Your task to perform on an android device: Open Yahoo.com Image 0: 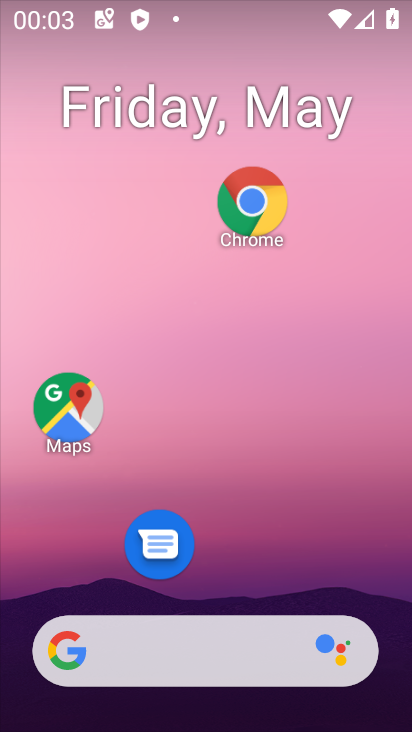
Step 0: click (255, 202)
Your task to perform on an android device: Open Yahoo.com Image 1: 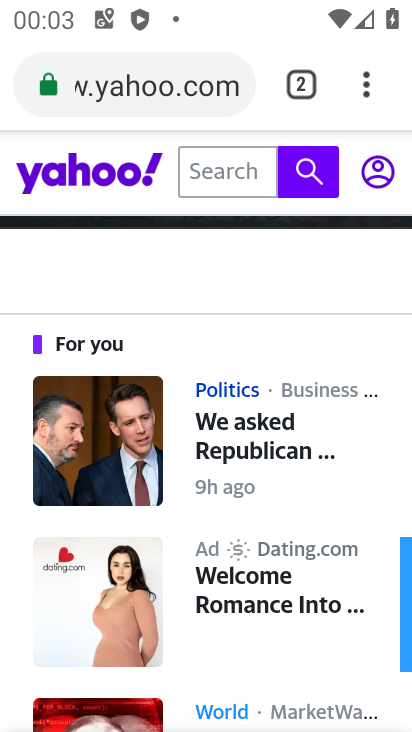
Step 1: task complete